Your task to perform on an android device: Go to settings Image 0: 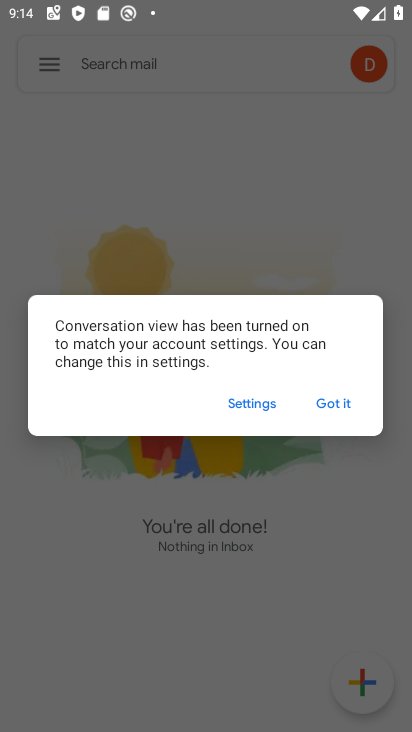
Step 0: click (252, 411)
Your task to perform on an android device: Go to settings Image 1: 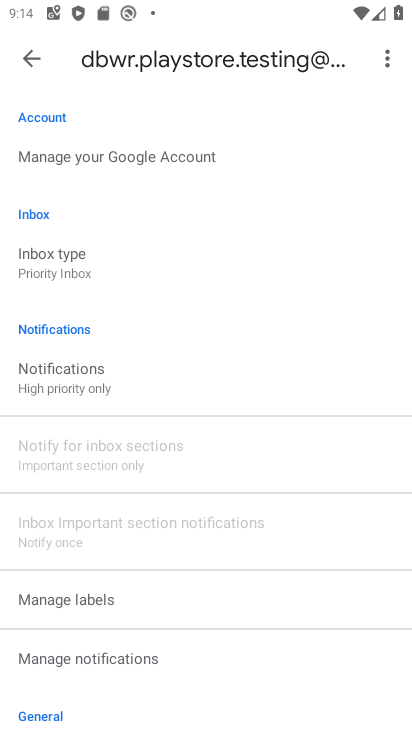
Step 1: task complete